Your task to perform on an android device: turn off airplane mode Image 0: 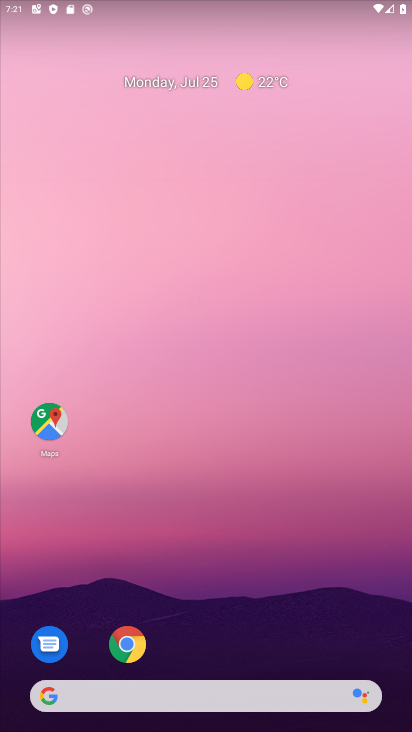
Step 0: press home button
Your task to perform on an android device: turn off airplane mode Image 1: 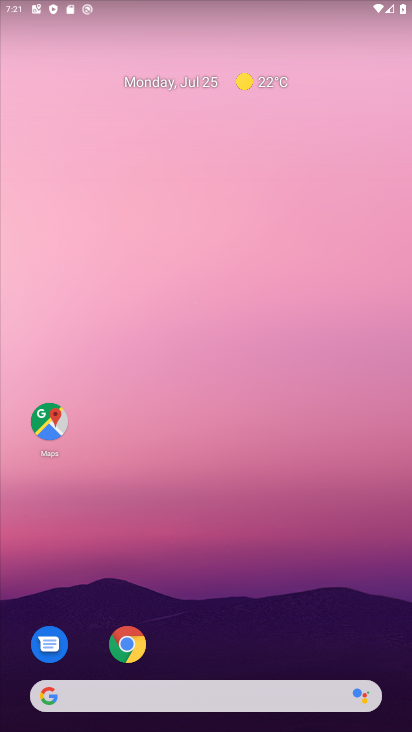
Step 1: task complete